Your task to perform on an android device: open the mobile data screen to see how much data has been used Image 0: 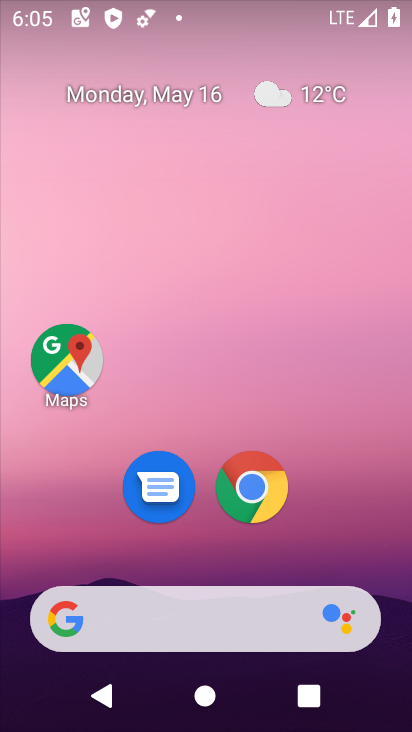
Step 0: drag from (328, 494) to (298, 106)
Your task to perform on an android device: open the mobile data screen to see how much data has been used Image 1: 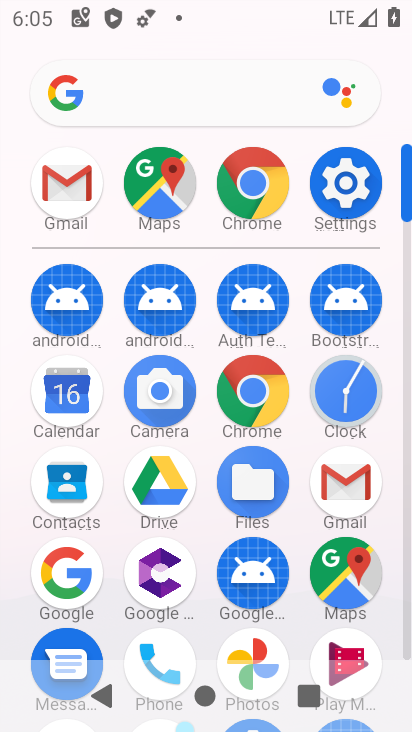
Step 1: click (351, 165)
Your task to perform on an android device: open the mobile data screen to see how much data has been used Image 2: 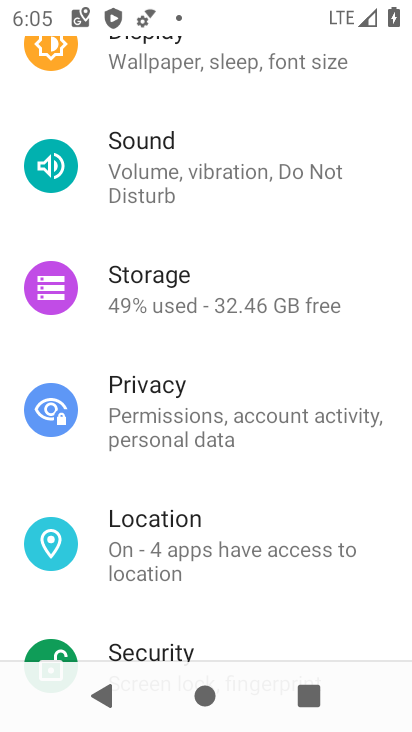
Step 2: drag from (267, 160) to (205, 596)
Your task to perform on an android device: open the mobile data screen to see how much data has been used Image 3: 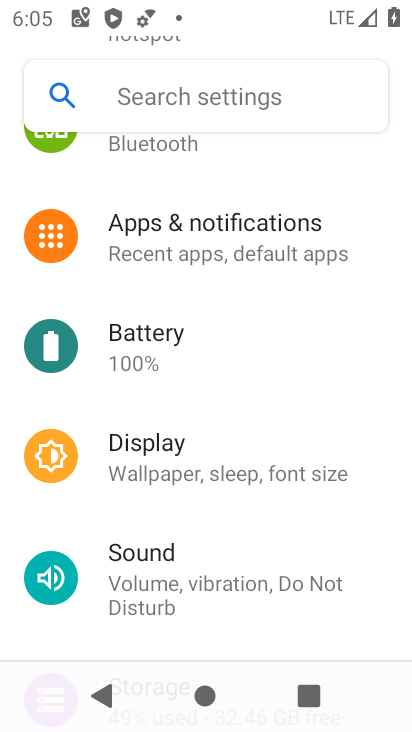
Step 3: drag from (216, 185) to (188, 526)
Your task to perform on an android device: open the mobile data screen to see how much data has been used Image 4: 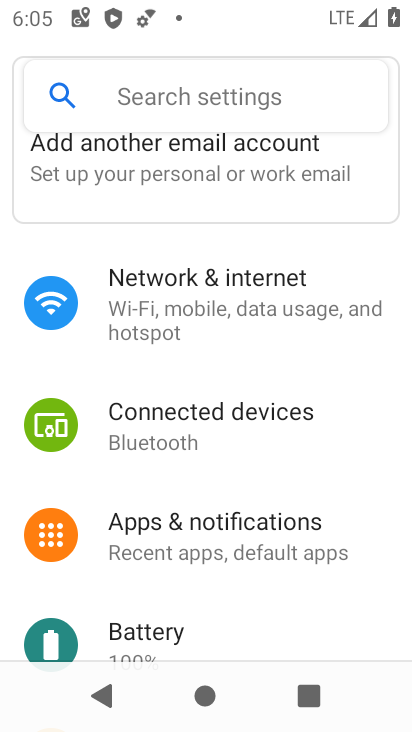
Step 4: click (218, 306)
Your task to perform on an android device: open the mobile data screen to see how much data has been used Image 5: 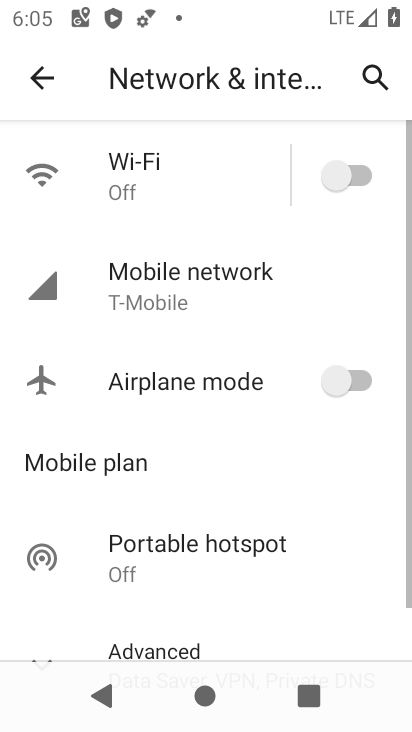
Step 5: click (211, 282)
Your task to perform on an android device: open the mobile data screen to see how much data has been used Image 6: 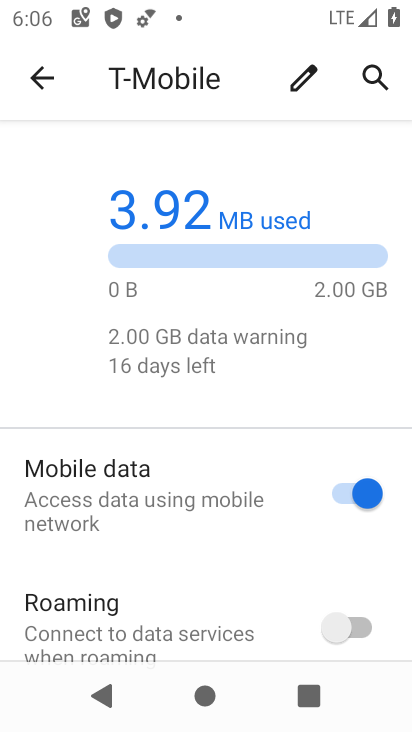
Step 6: task complete